Your task to perform on an android device: Open notification settings Image 0: 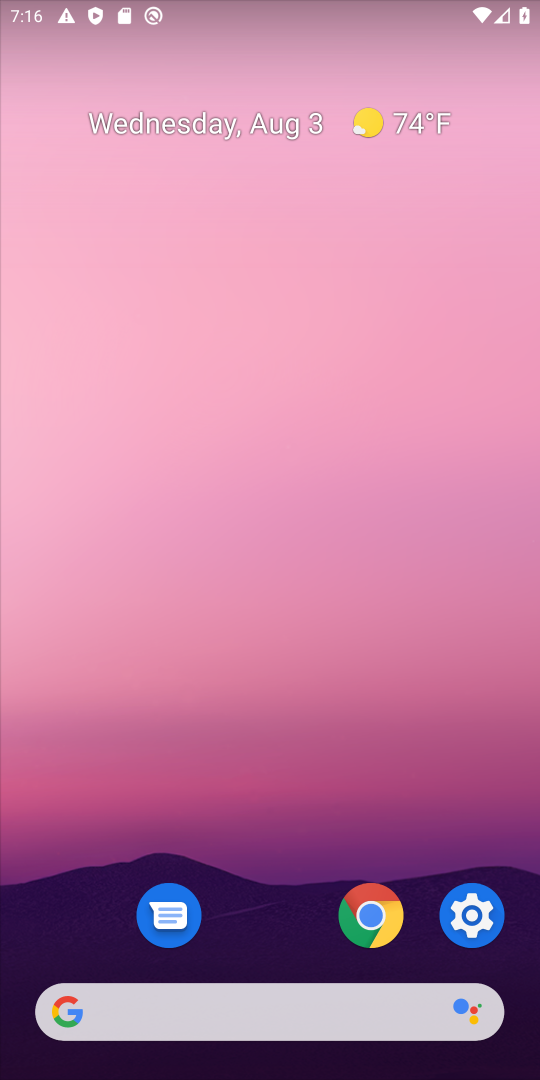
Step 0: drag from (295, 1034) to (210, 274)
Your task to perform on an android device: Open notification settings Image 1: 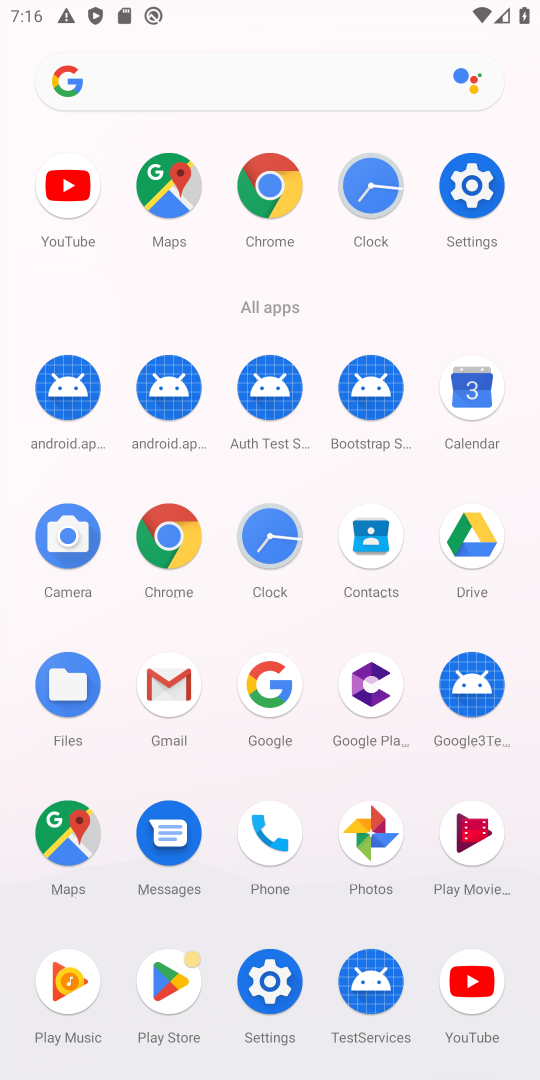
Step 1: click (475, 164)
Your task to perform on an android device: Open notification settings Image 2: 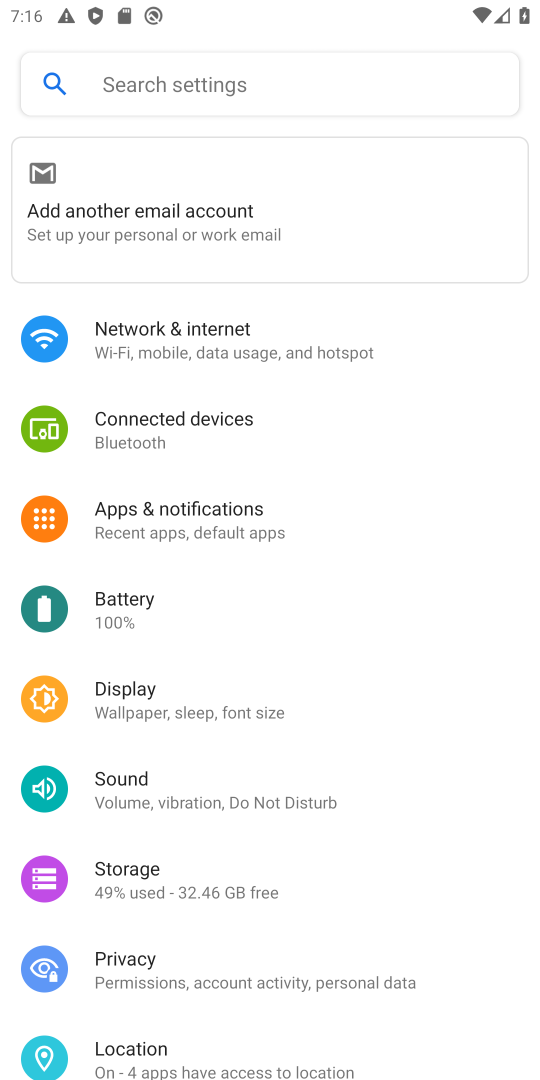
Step 2: click (164, 92)
Your task to perform on an android device: Open notification settings Image 3: 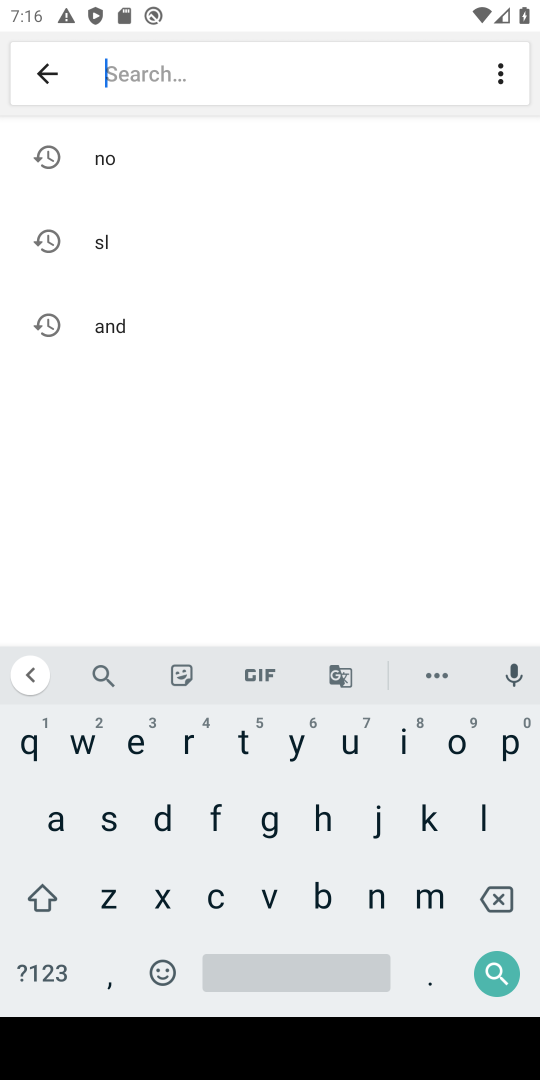
Step 3: click (377, 898)
Your task to perform on an android device: Open notification settings Image 4: 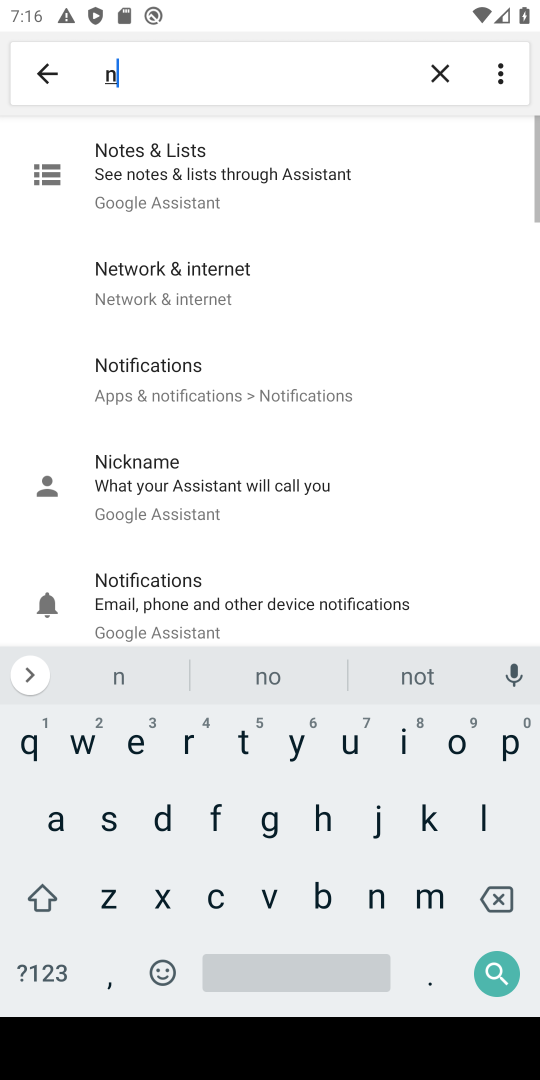
Step 4: click (453, 735)
Your task to perform on an android device: Open notification settings Image 5: 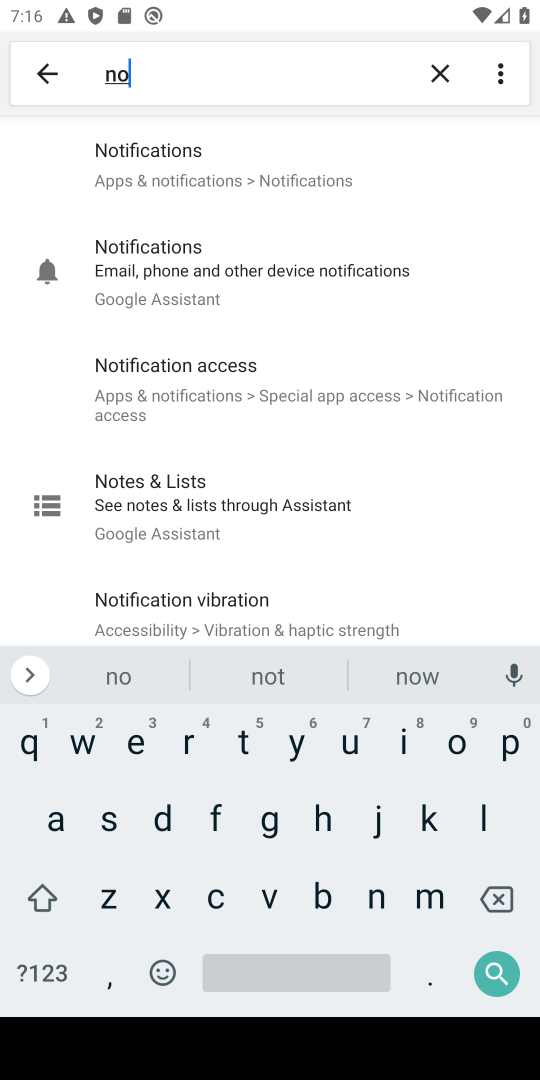
Step 5: click (179, 167)
Your task to perform on an android device: Open notification settings Image 6: 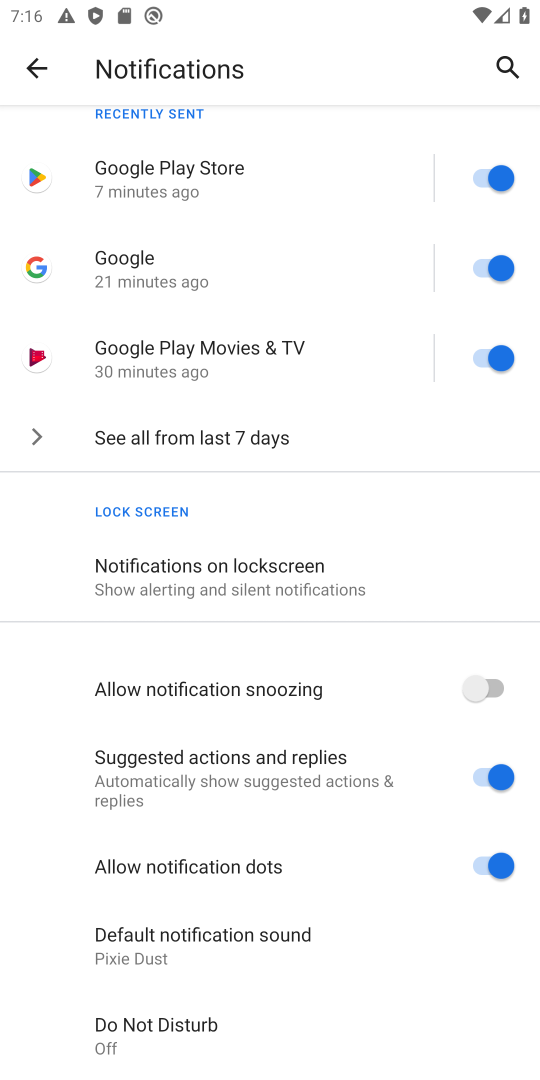
Step 6: click (237, 565)
Your task to perform on an android device: Open notification settings Image 7: 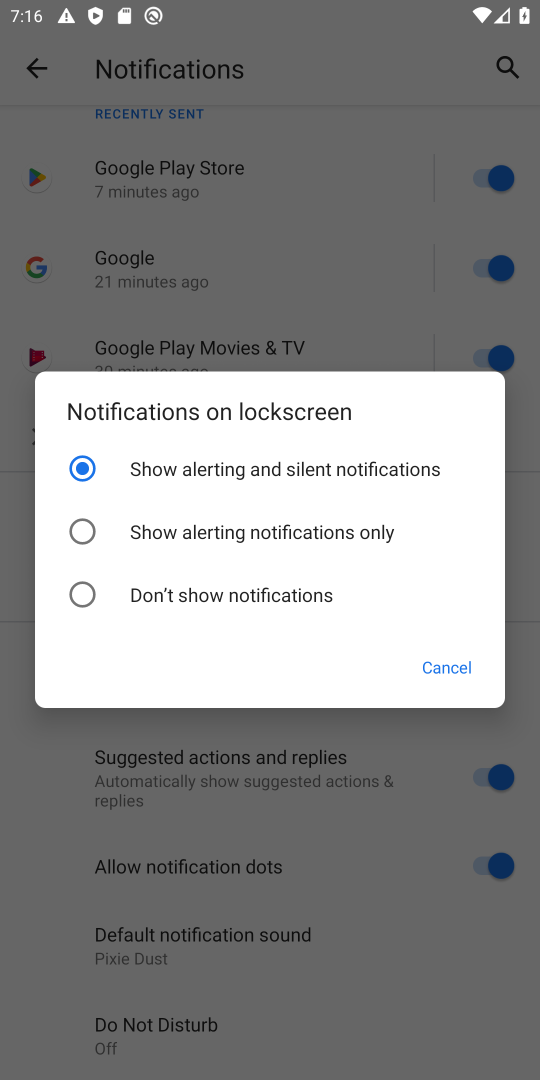
Step 7: task complete